Your task to perform on an android device: choose inbox layout in the gmail app Image 0: 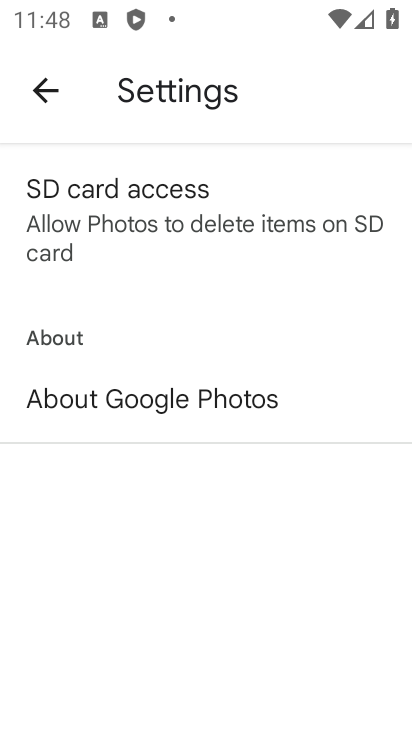
Step 0: press home button
Your task to perform on an android device: choose inbox layout in the gmail app Image 1: 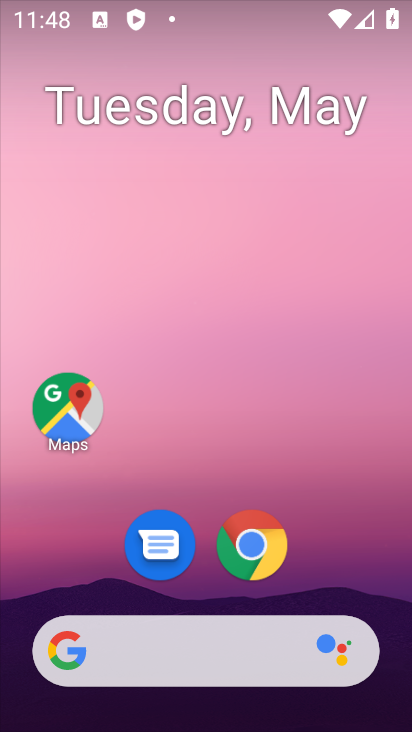
Step 1: drag from (198, 597) to (235, 161)
Your task to perform on an android device: choose inbox layout in the gmail app Image 2: 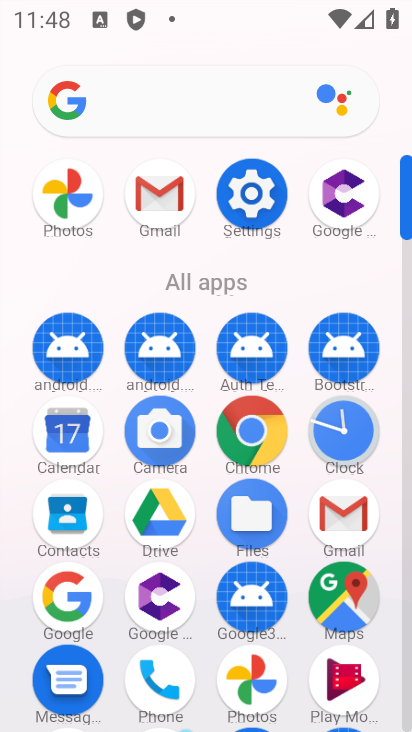
Step 2: click (348, 506)
Your task to perform on an android device: choose inbox layout in the gmail app Image 3: 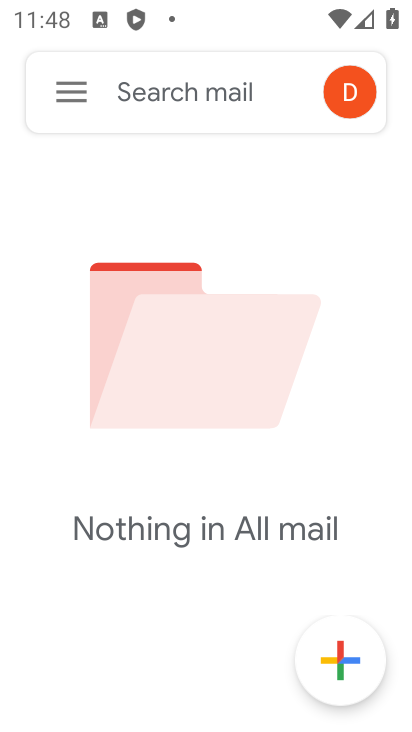
Step 3: click (74, 91)
Your task to perform on an android device: choose inbox layout in the gmail app Image 4: 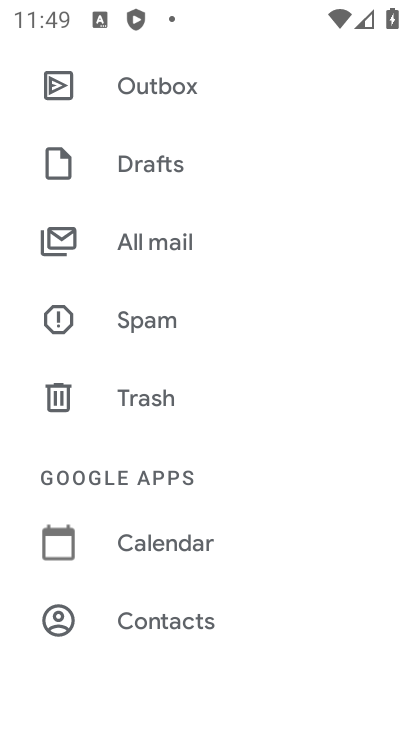
Step 4: drag from (168, 572) to (203, 241)
Your task to perform on an android device: choose inbox layout in the gmail app Image 5: 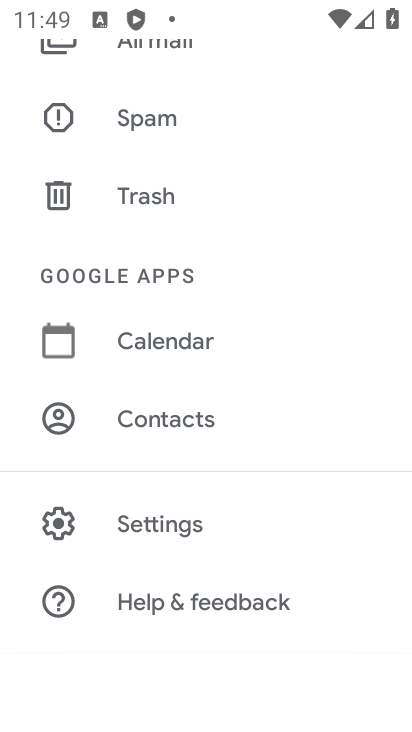
Step 5: click (125, 519)
Your task to perform on an android device: choose inbox layout in the gmail app Image 6: 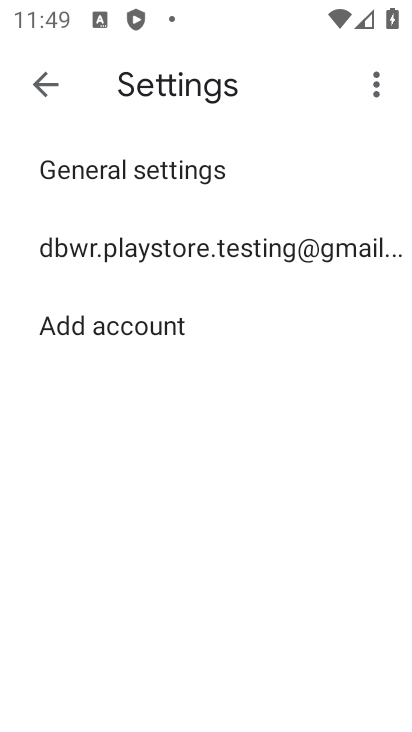
Step 6: click (210, 244)
Your task to perform on an android device: choose inbox layout in the gmail app Image 7: 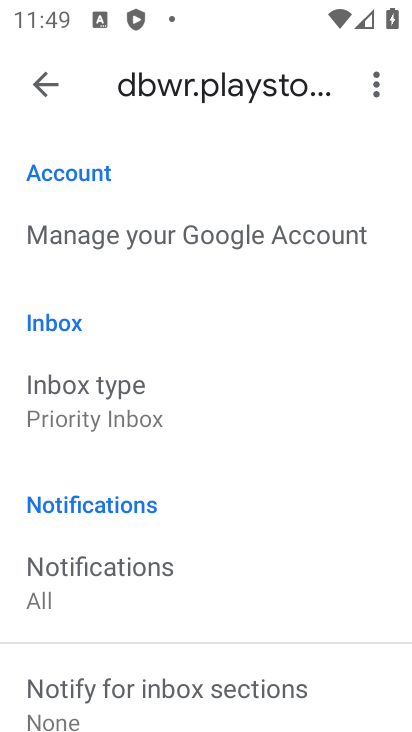
Step 7: click (103, 400)
Your task to perform on an android device: choose inbox layout in the gmail app Image 8: 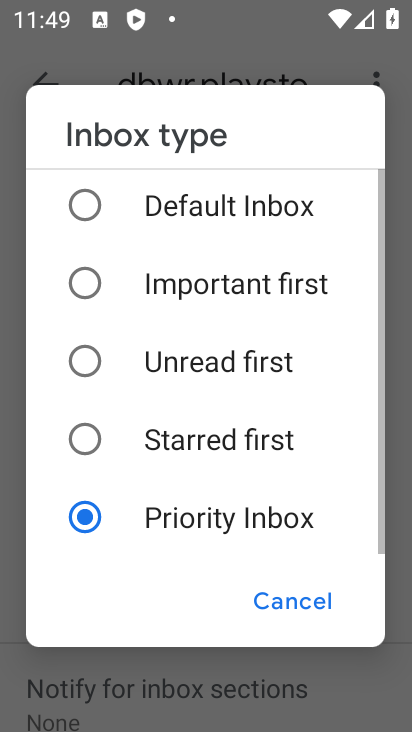
Step 8: click (88, 218)
Your task to perform on an android device: choose inbox layout in the gmail app Image 9: 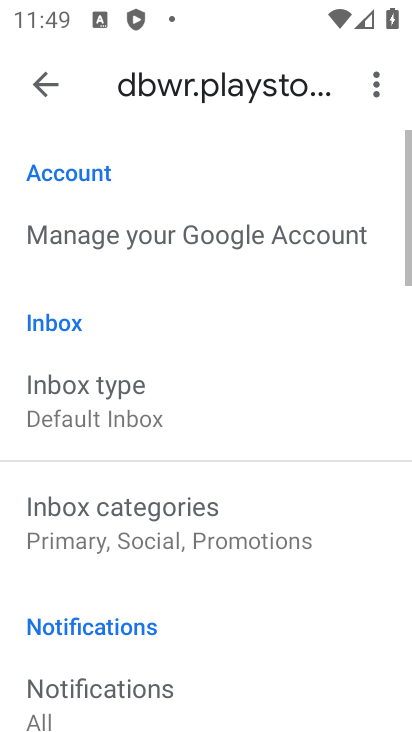
Step 9: task complete